Your task to perform on an android device: visit the assistant section in the google photos Image 0: 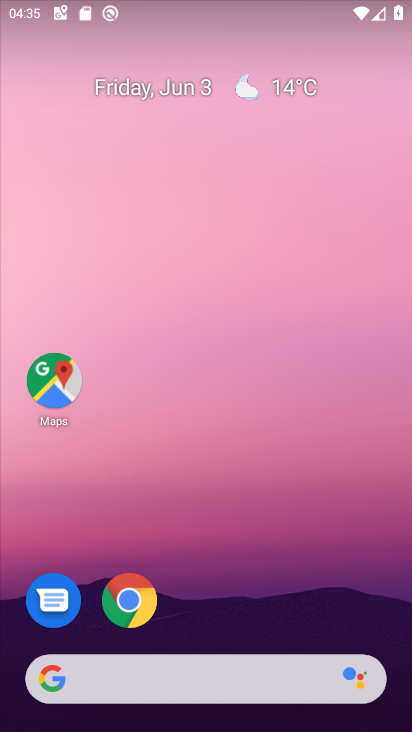
Step 0: drag from (246, 583) to (223, 131)
Your task to perform on an android device: visit the assistant section in the google photos Image 1: 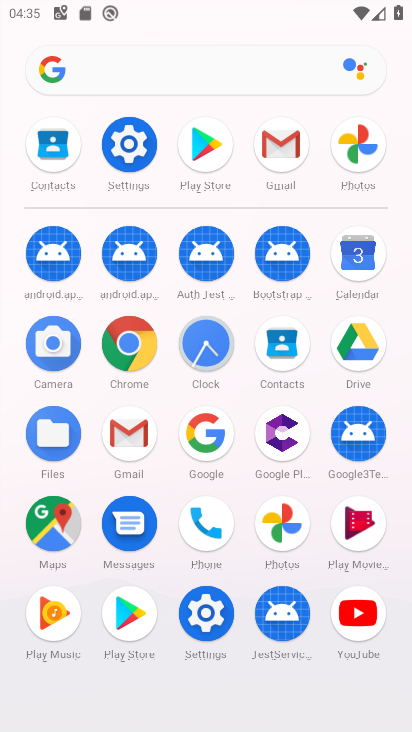
Step 1: click (291, 537)
Your task to perform on an android device: visit the assistant section in the google photos Image 2: 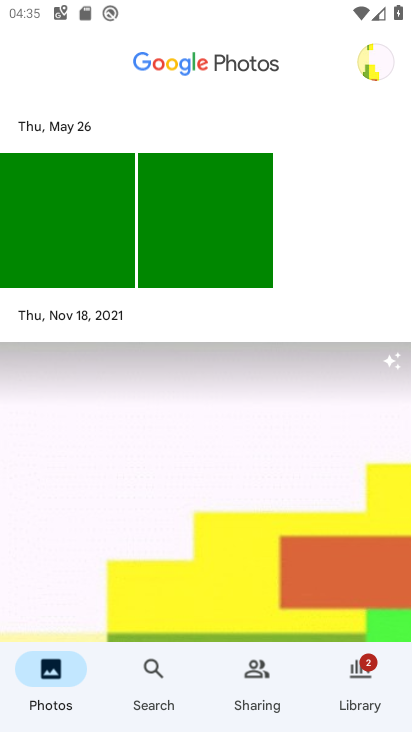
Step 2: click (342, 678)
Your task to perform on an android device: visit the assistant section in the google photos Image 3: 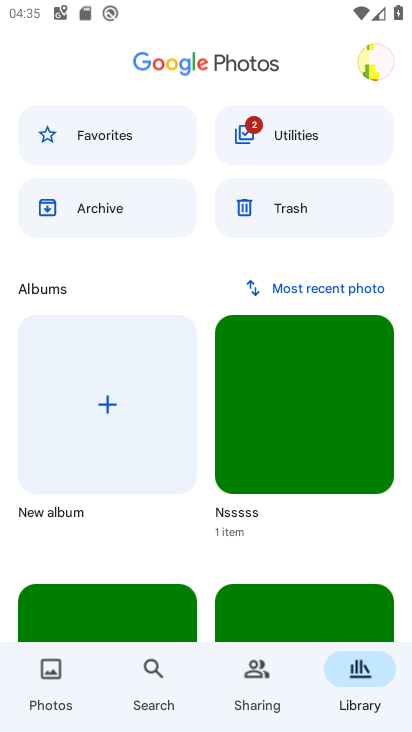
Step 3: click (370, 65)
Your task to perform on an android device: visit the assistant section in the google photos Image 4: 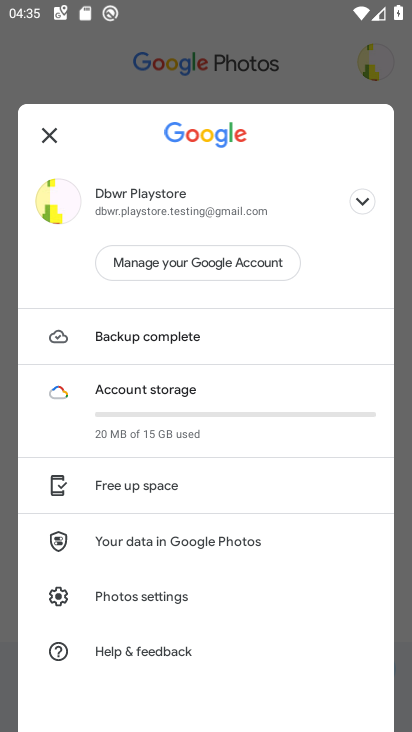
Step 4: drag from (255, 458) to (290, 149)
Your task to perform on an android device: visit the assistant section in the google photos Image 5: 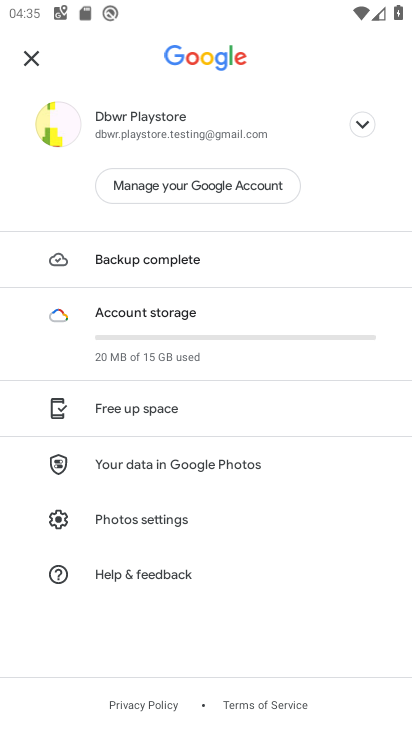
Step 5: click (23, 57)
Your task to perform on an android device: visit the assistant section in the google photos Image 6: 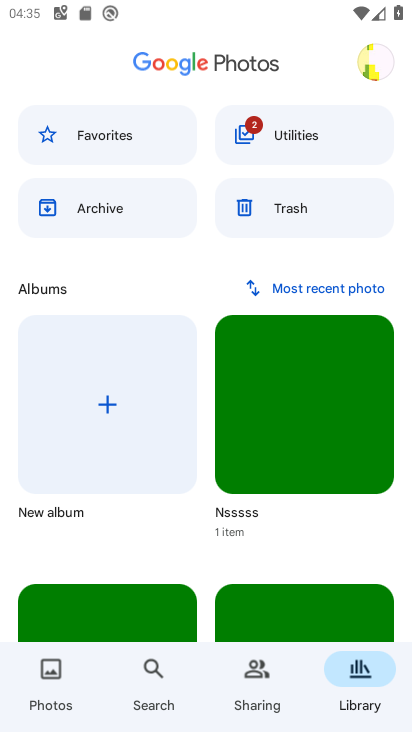
Step 6: click (282, 140)
Your task to perform on an android device: visit the assistant section in the google photos Image 7: 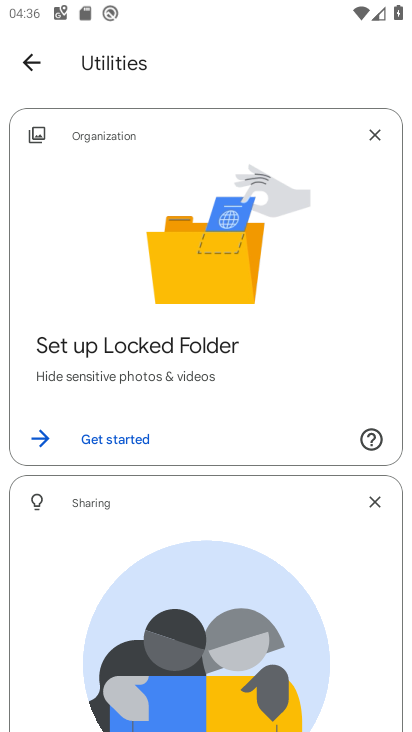
Step 7: drag from (325, 606) to (349, 24)
Your task to perform on an android device: visit the assistant section in the google photos Image 8: 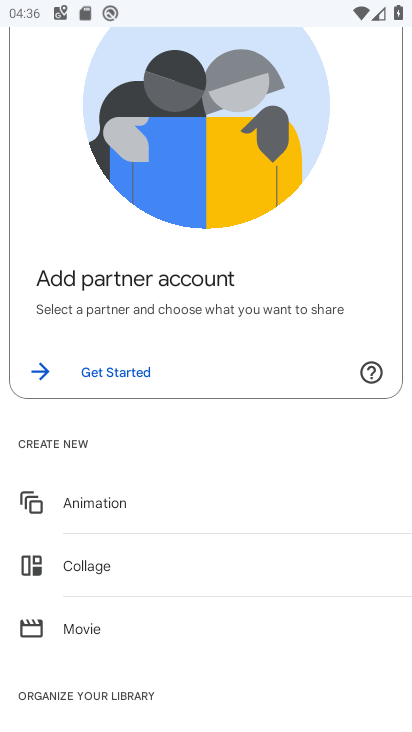
Step 8: drag from (54, 93) to (297, 702)
Your task to perform on an android device: visit the assistant section in the google photos Image 9: 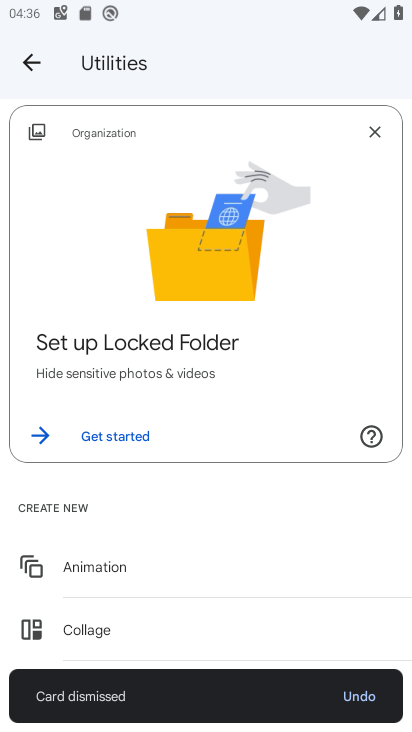
Step 9: click (33, 67)
Your task to perform on an android device: visit the assistant section in the google photos Image 10: 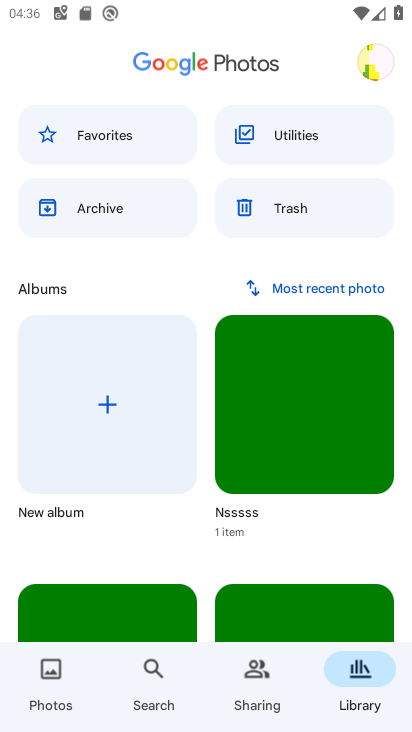
Step 10: task complete